Your task to perform on an android device: delete location history Image 0: 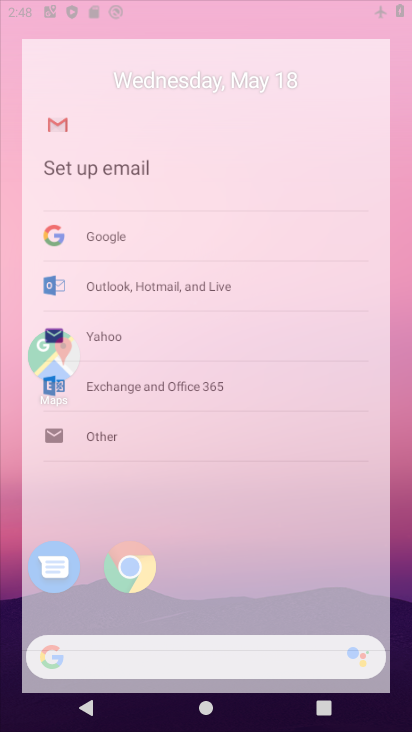
Step 0: drag from (204, 595) to (206, 166)
Your task to perform on an android device: delete location history Image 1: 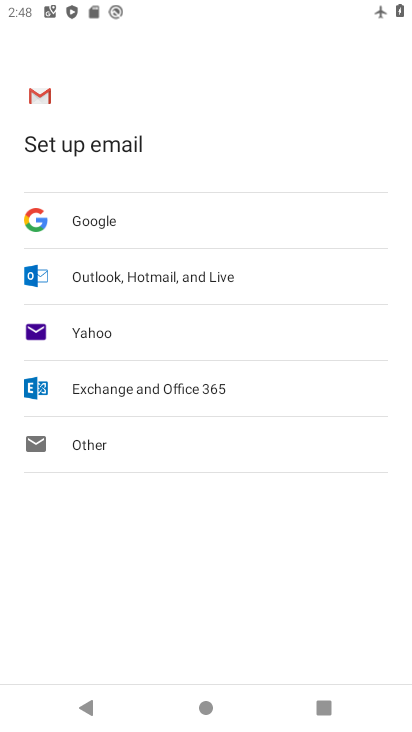
Step 1: press home button
Your task to perform on an android device: delete location history Image 2: 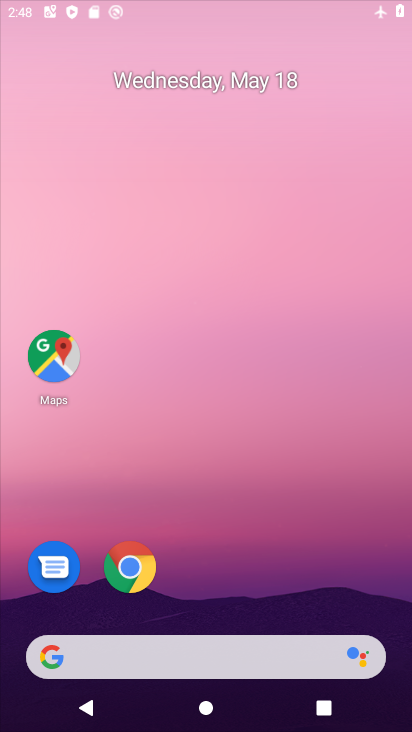
Step 2: drag from (188, 606) to (202, 291)
Your task to perform on an android device: delete location history Image 3: 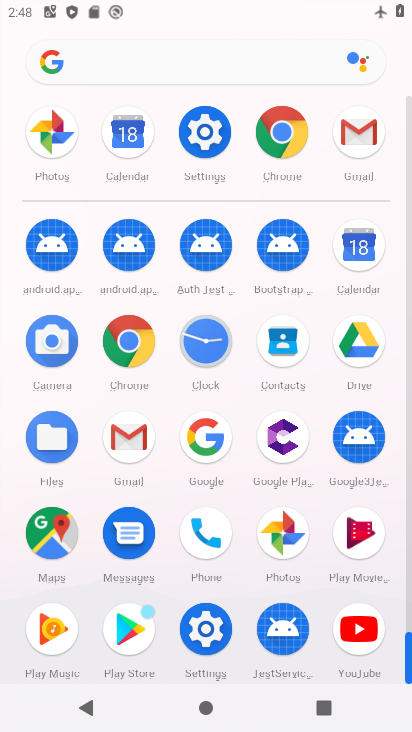
Step 3: click (56, 522)
Your task to perform on an android device: delete location history Image 4: 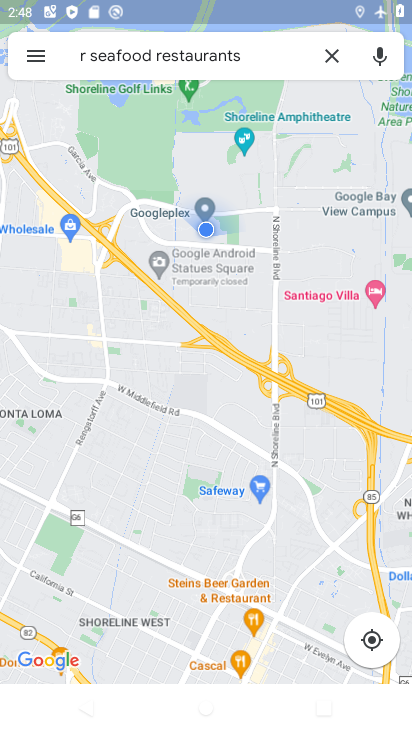
Step 4: click (30, 51)
Your task to perform on an android device: delete location history Image 5: 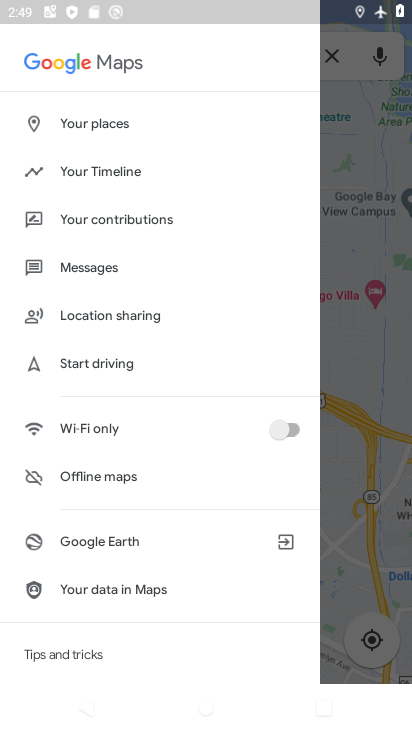
Step 5: click (120, 167)
Your task to perform on an android device: delete location history Image 6: 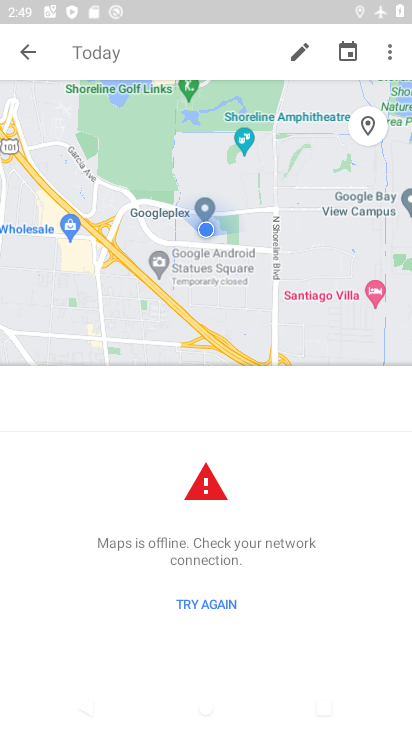
Step 6: click (392, 46)
Your task to perform on an android device: delete location history Image 7: 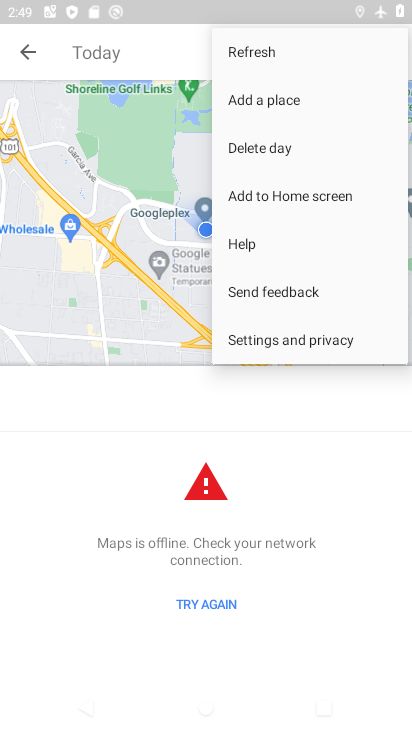
Step 7: click (308, 334)
Your task to perform on an android device: delete location history Image 8: 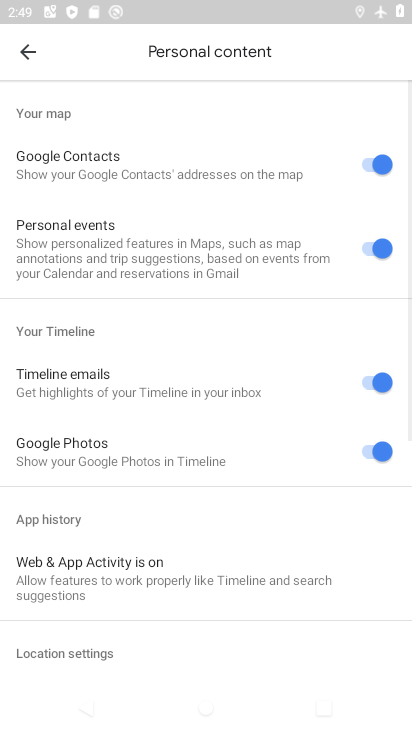
Step 8: drag from (184, 571) to (182, 140)
Your task to perform on an android device: delete location history Image 9: 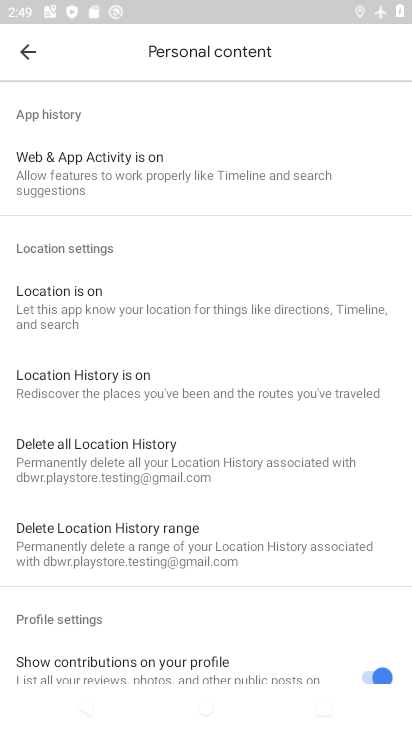
Step 9: click (138, 449)
Your task to perform on an android device: delete location history Image 10: 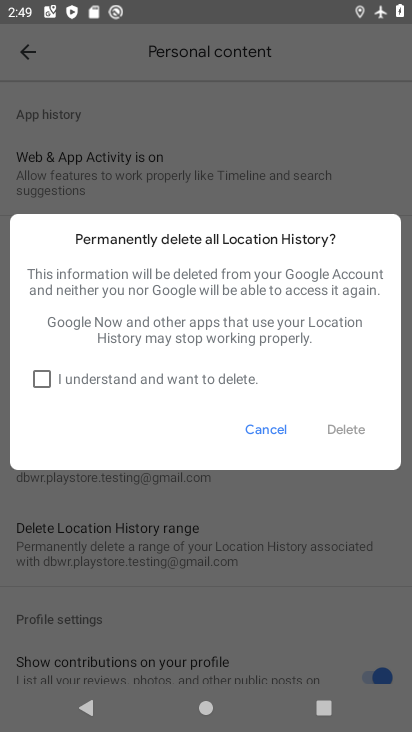
Step 10: click (109, 370)
Your task to perform on an android device: delete location history Image 11: 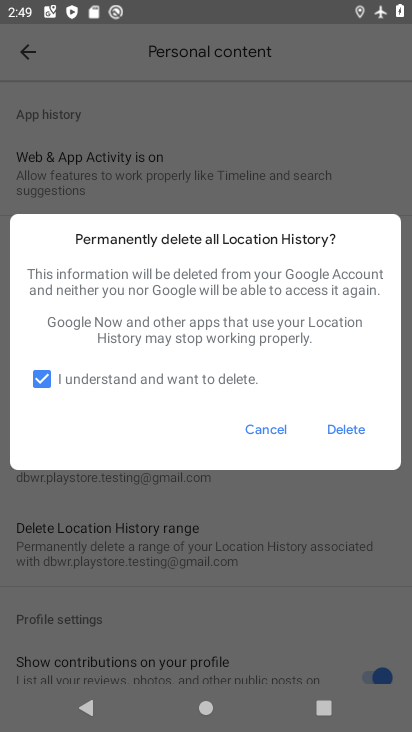
Step 11: click (331, 428)
Your task to perform on an android device: delete location history Image 12: 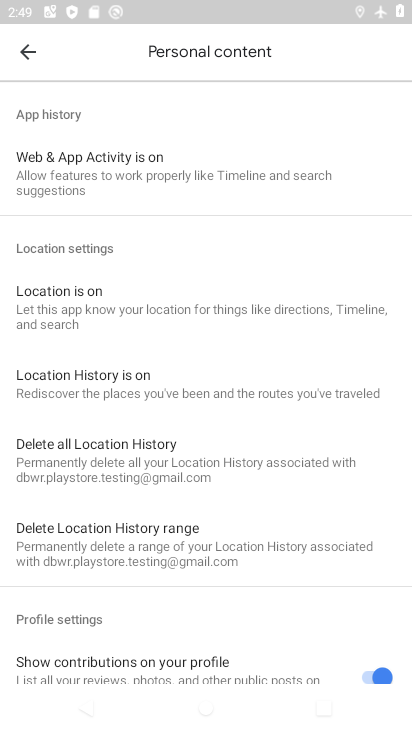
Step 12: task complete